Your task to perform on an android device: turn on improve location accuracy Image 0: 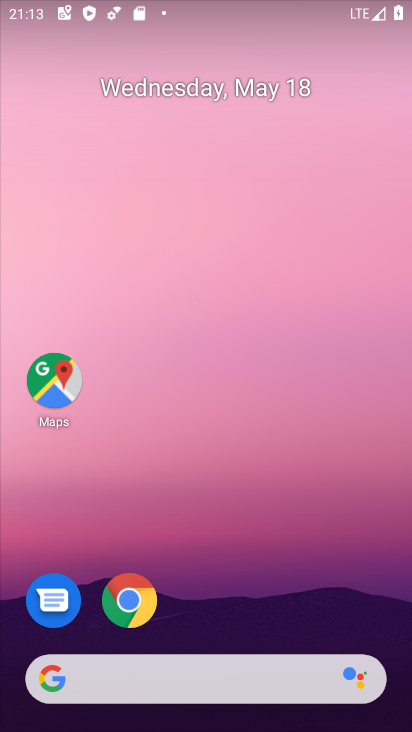
Step 0: drag from (208, 561) to (272, 80)
Your task to perform on an android device: turn on improve location accuracy Image 1: 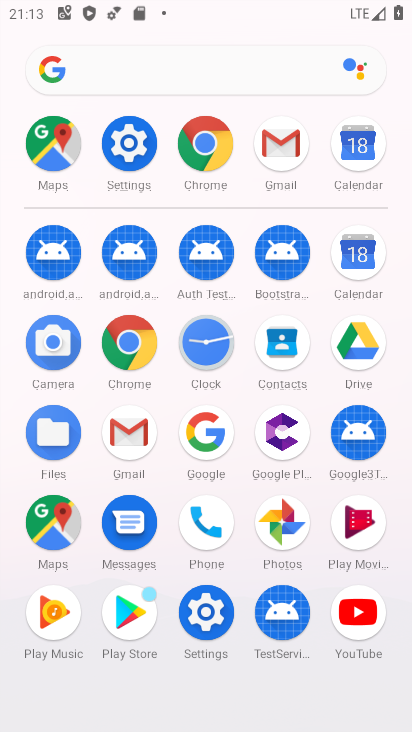
Step 1: click (131, 144)
Your task to perform on an android device: turn on improve location accuracy Image 2: 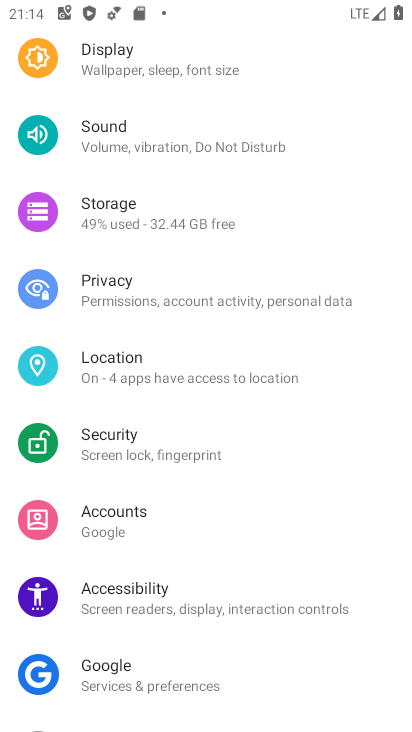
Step 2: click (135, 365)
Your task to perform on an android device: turn on improve location accuracy Image 3: 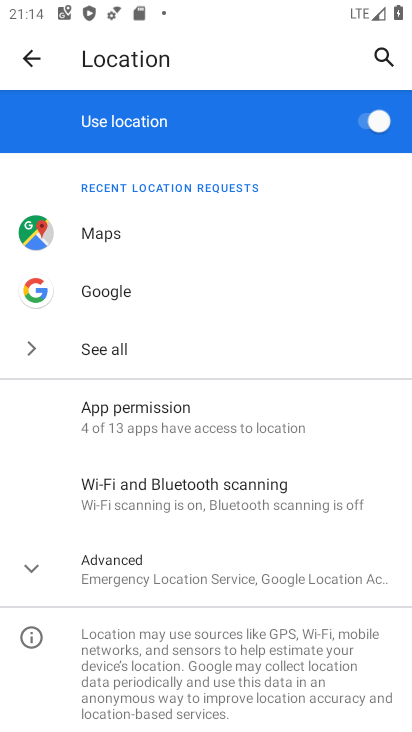
Step 3: click (163, 569)
Your task to perform on an android device: turn on improve location accuracy Image 4: 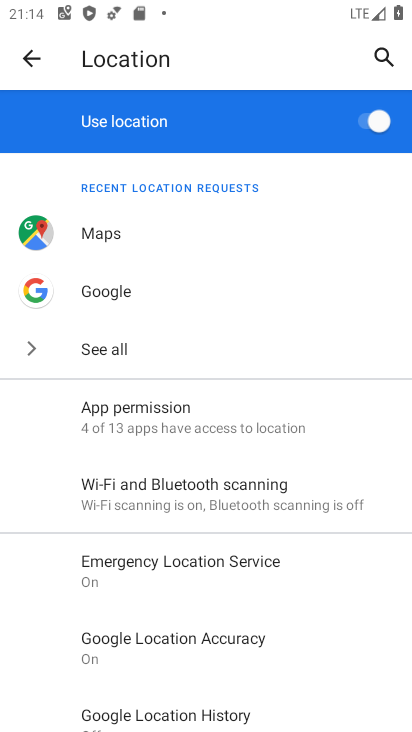
Step 4: click (230, 637)
Your task to perform on an android device: turn on improve location accuracy Image 5: 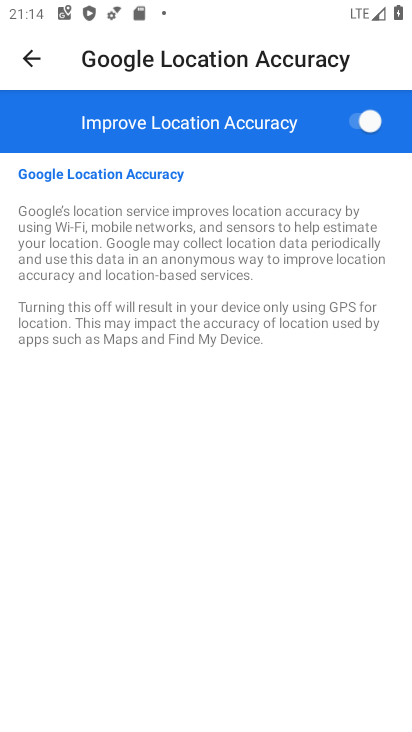
Step 5: task complete